Your task to perform on an android device: change the clock display to analog Image 0: 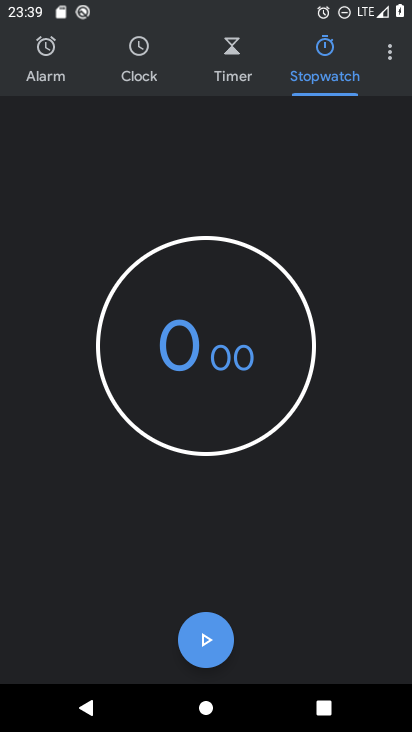
Step 0: click (392, 52)
Your task to perform on an android device: change the clock display to analog Image 1: 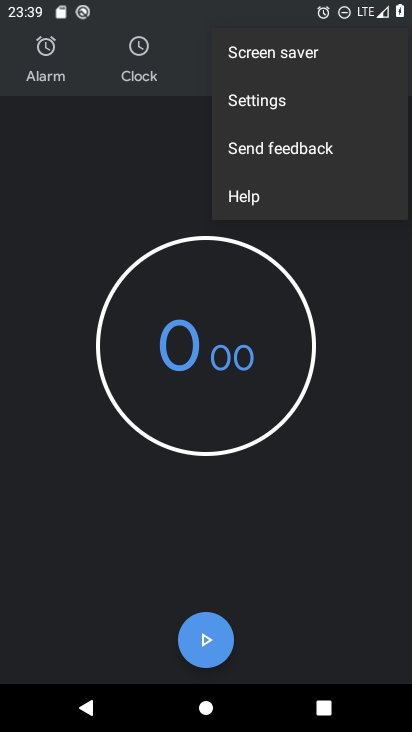
Step 1: click (265, 103)
Your task to perform on an android device: change the clock display to analog Image 2: 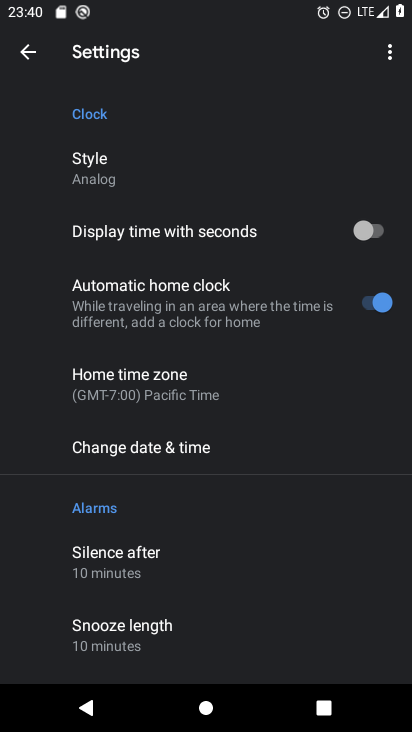
Step 2: task complete